Your task to perform on an android device: open wifi settings Image 0: 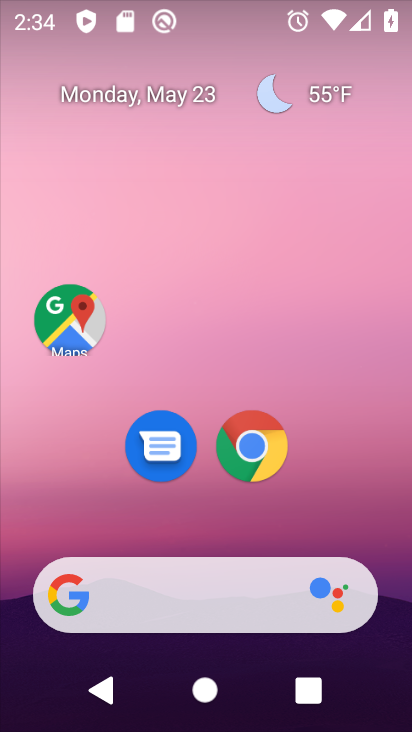
Step 0: drag from (202, 494) to (169, 222)
Your task to perform on an android device: open wifi settings Image 1: 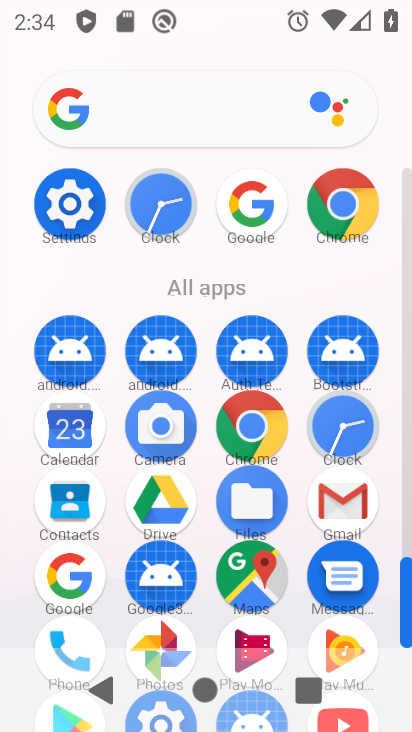
Step 1: click (80, 215)
Your task to perform on an android device: open wifi settings Image 2: 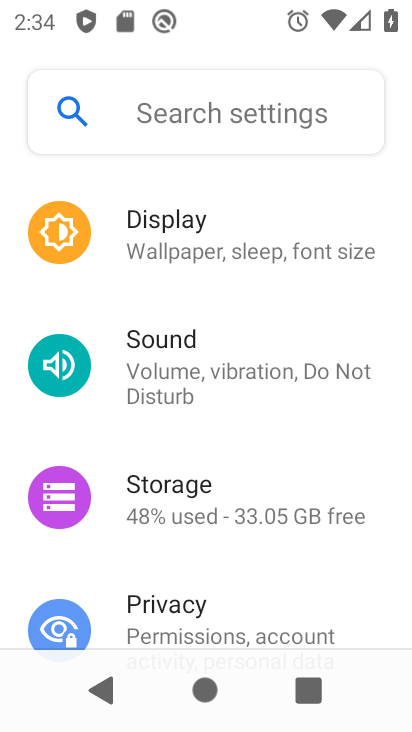
Step 2: drag from (199, 318) to (236, 557)
Your task to perform on an android device: open wifi settings Image 3: 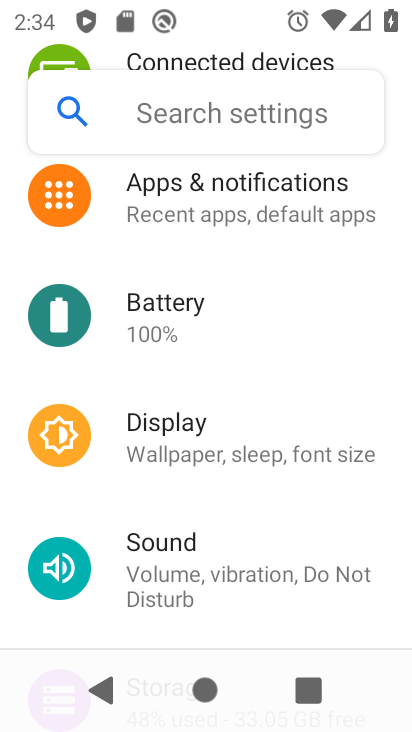
Step 3: drag from (189, 207) to (222, 525)
Your task to perform on an android device: open wifi settings Image 4: 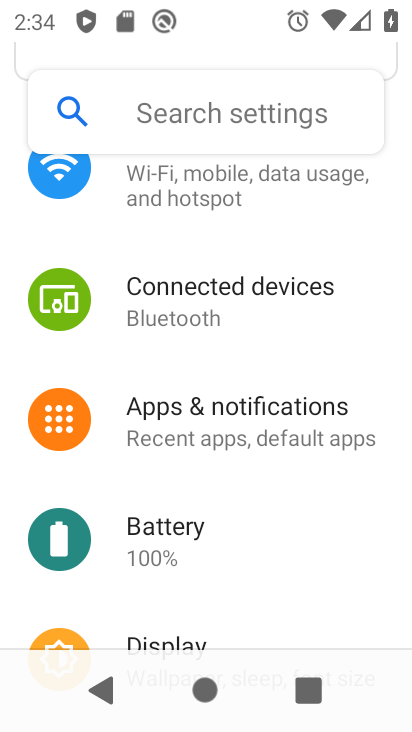
Step 4: click (202, 192)
Your task to perform on an android device: open wifi settings Image 5: 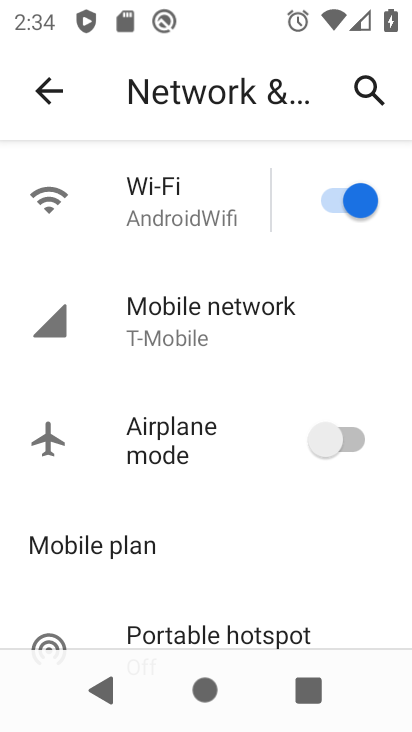
Step 5: click (202, 192)
Your task to perform on an android device: open wifi settings Image 6: 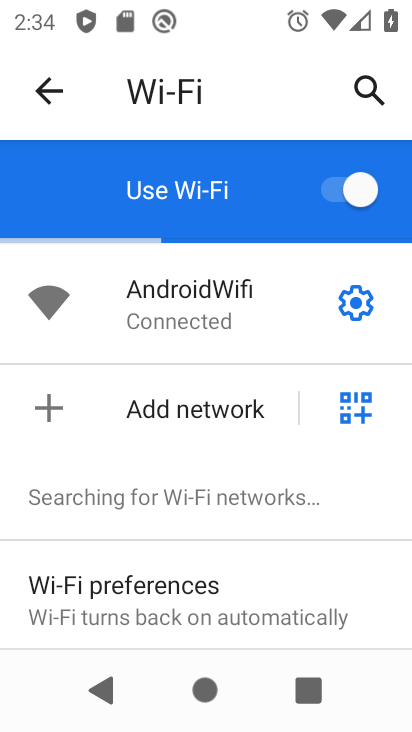
Step 6: task complete